Your task to perform on an android device: turn pop-ups off in chrome Image 0: 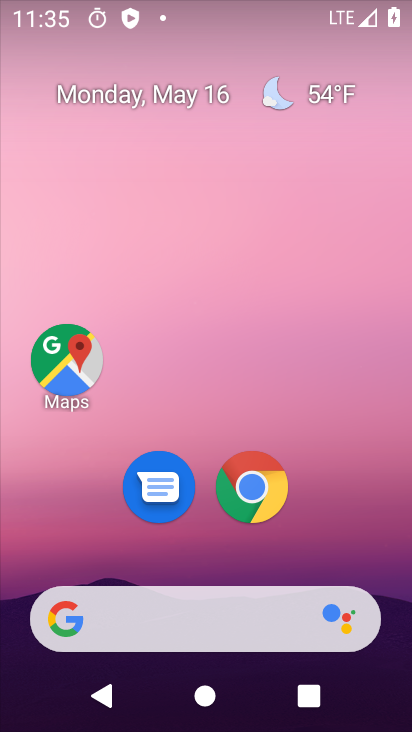
Step 0: click (273, 493)
Your task to perform on an android device: turn pop-ups off in chrome Image 1: 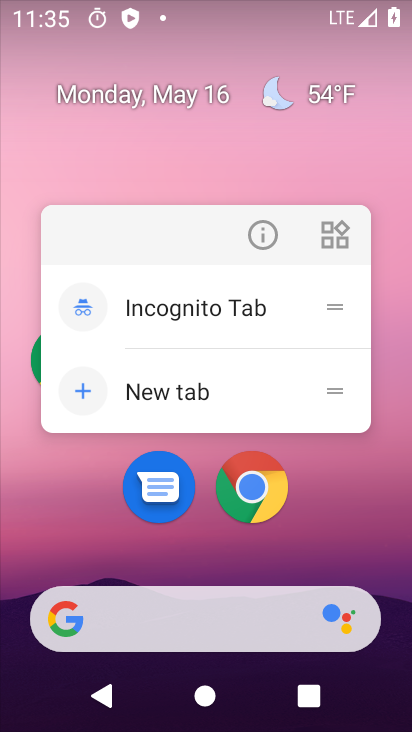
Step 1: click (248, 491)
Your task to perform on an android device: turn pop-ups off in chrome Image 2: 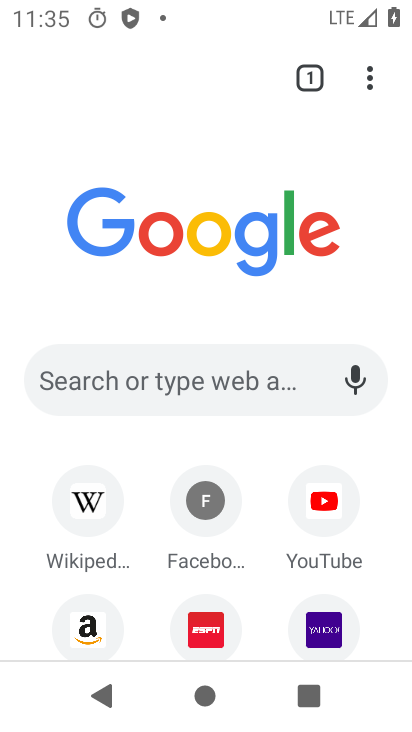
Step 2: click (373, 65)
Your task to perform on an android device: turn pop-ups off in chrome Image 3: 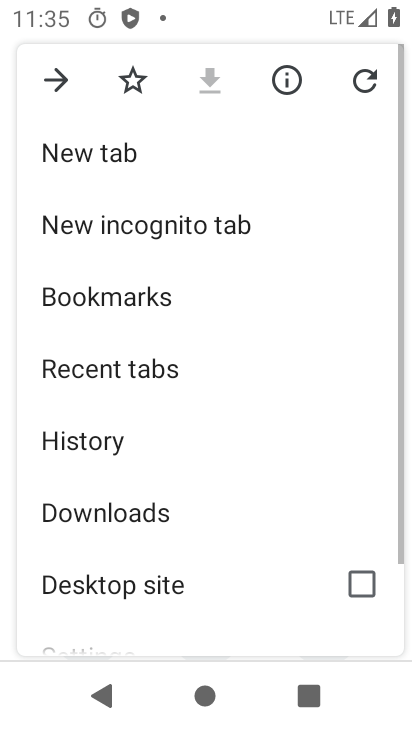
Step 3: drag from (184, 517) to (261, 50)
Your task to perform on an android device: turn pop-ups off in chrome Image 4: 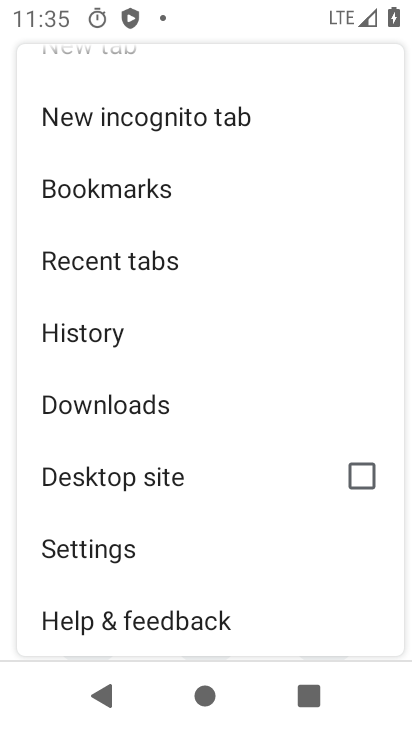
Step 4: click (118, 548)
Your task to perform on an android device: turn pop-ups off in chrome Image 5: 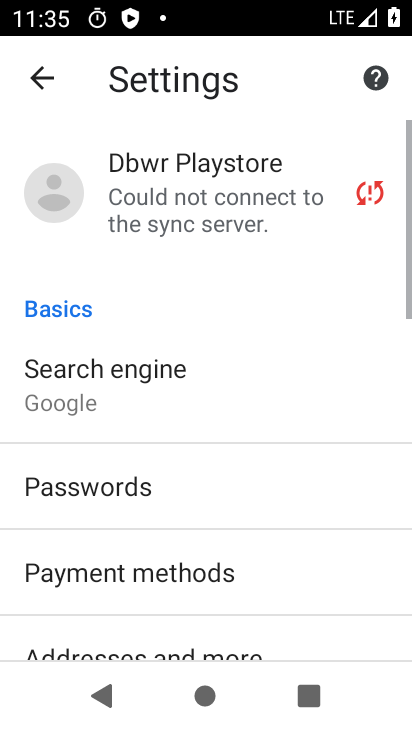
Step 5: drag from (156, 618) to (284, 102)
Your task to perform on an android device: turn pop-ups off in chrome Image 6: 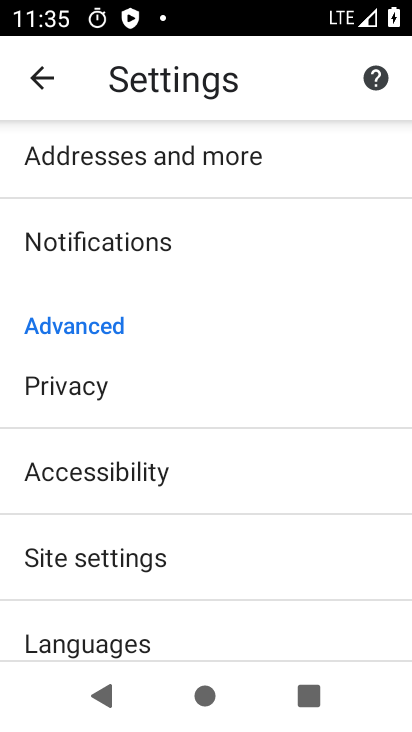
Step 6: click (144, 568)
Your task to perform on an android device: turn pop-ups off in chrome Image 7: 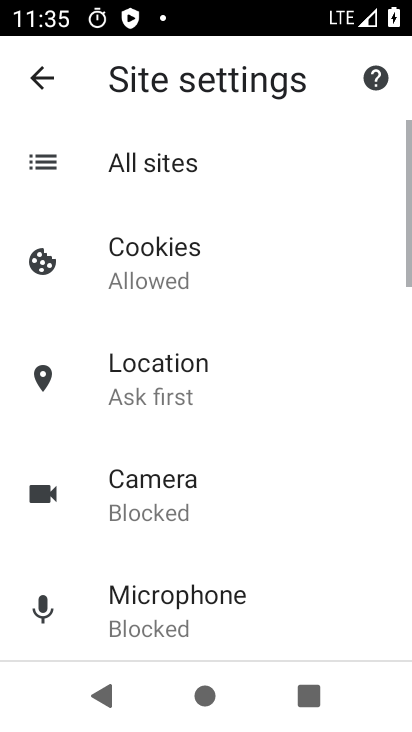
Step 7: drag from (183, 602) to (260, 89)
Your task to perform on an android device: turn pop-ups off in chrome Image 8: 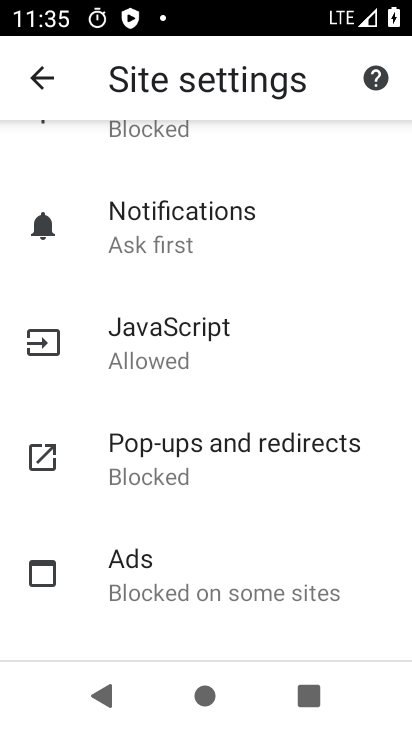
Step 8: click (169, 463)
Your task to perform on an android device: turn pop-ups off in chrome Image 9: 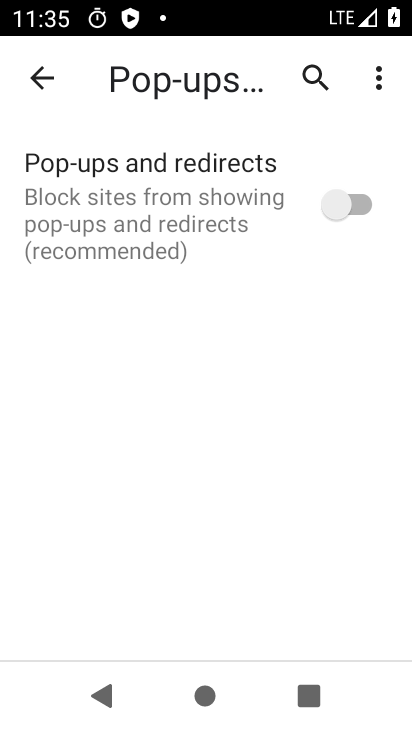
Step 9: task complete